Your task to perform on an android device: turn off notifications settings in the gmail app Image 0: 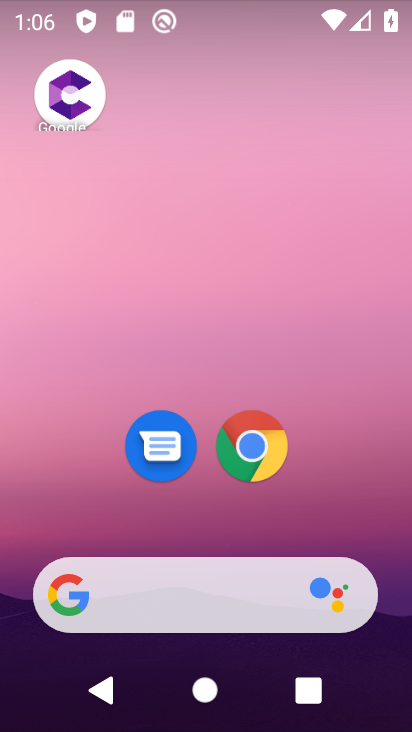
Step 0: drag from (345, 474) to (391, 6)
Your task to perform on an android device: turn off notifications settings in the gmail app Image 1: 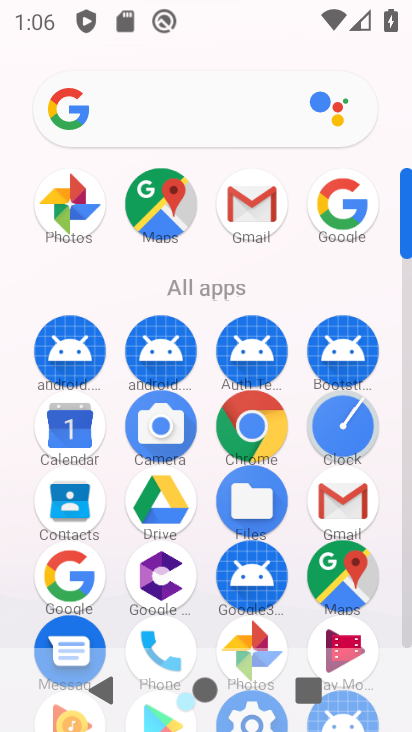
Step 1: click (267, 197)
Your task to perform on an android device: turn off notifications settings in the gmail app Image 2: 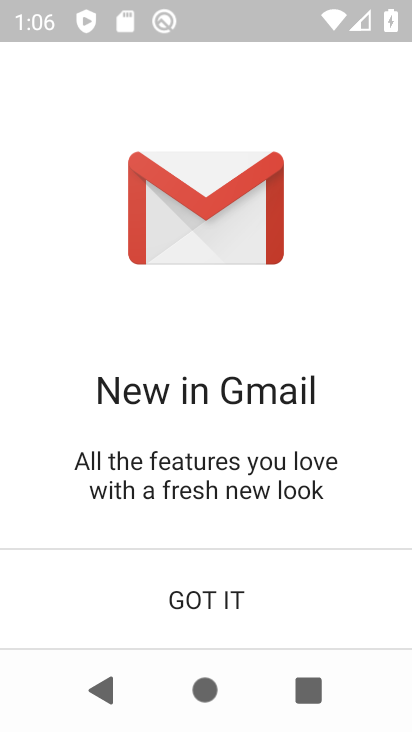
Step 2: click (145, 571)
Your task to perform on an android device: turn off notifications settings in the gmail app Image 3: 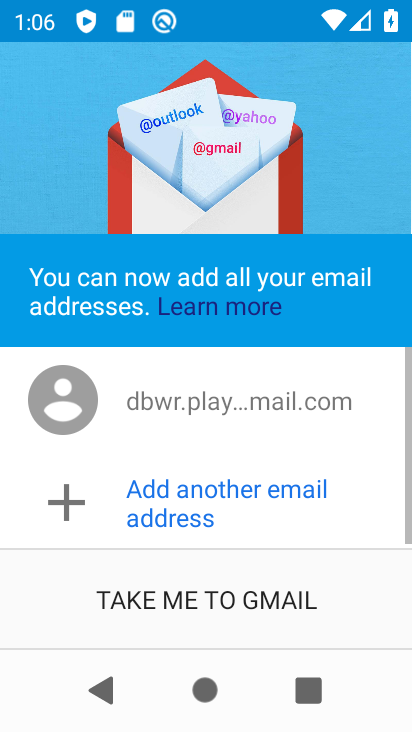
Step 3: click (148, 575)
Your task to perform on an android device: turn off notifications settings in the gmail app Image 4: 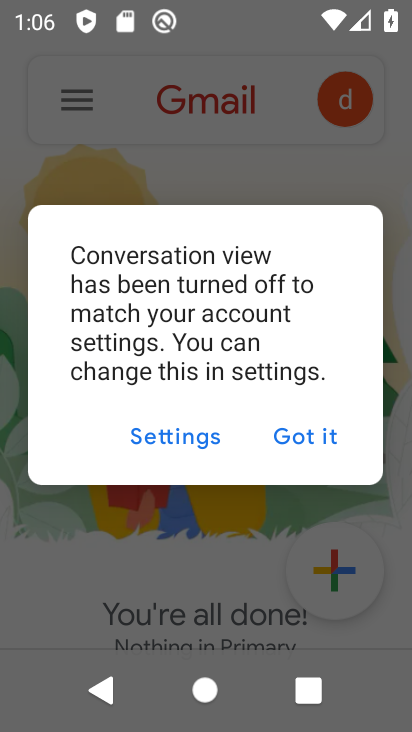
Step 4: click (314, 434)
Your task to perform on an android device: turn off notifications settings in the gmail app Image 5: 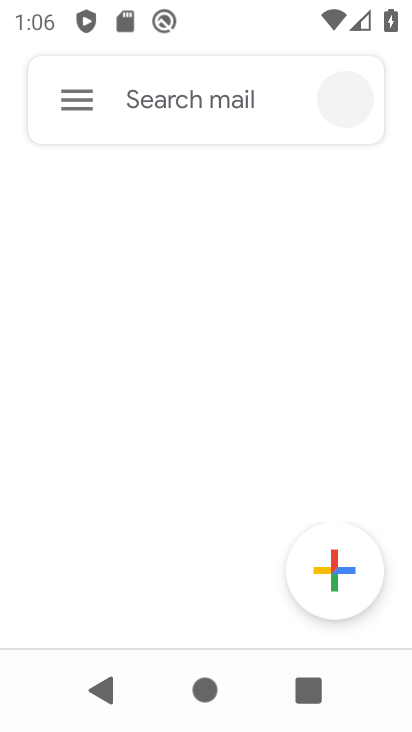
Step 5: click (86, 108)
Your task to perform on an android device: turn off notifications settings in the gmail app Image 6: 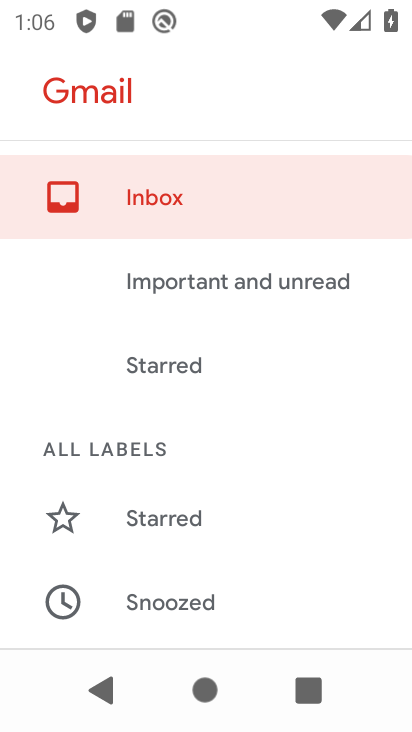
Step 6: drag from (200, 531) to (262, 111)
Your task to perform on an android device: turn off notifications settings in the gmail app Image 7: 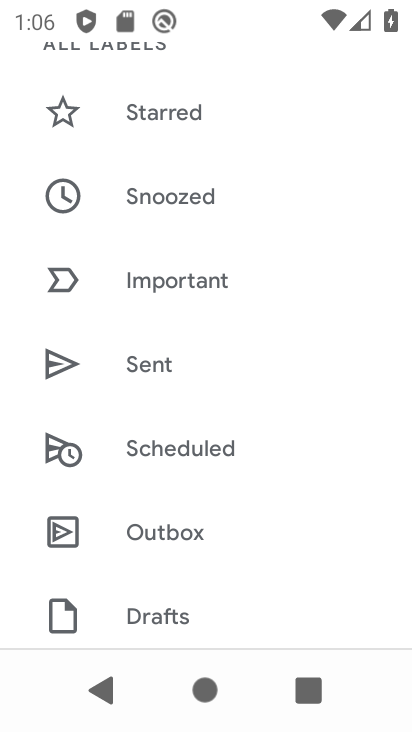
Step 7: drag from (202, 508) to (247, 82)
Your task to perform on an android device: turn off notifications settings in the gmail app Image 8: 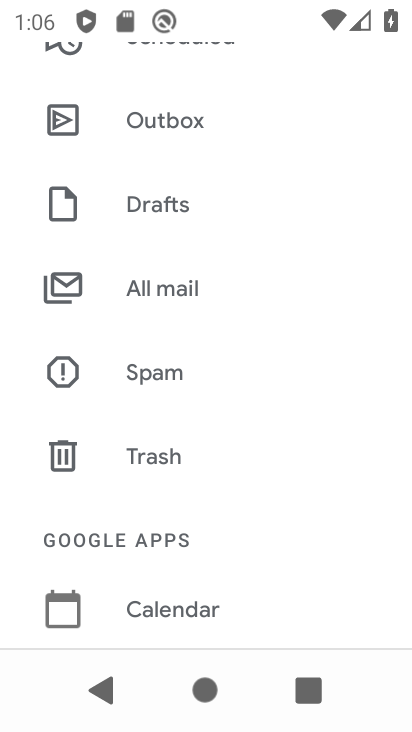
Step 8: drag from (181, 536) to (254, 153)
Your task to perform on an android device: turn off notifications settings in the gmail app Image 9: 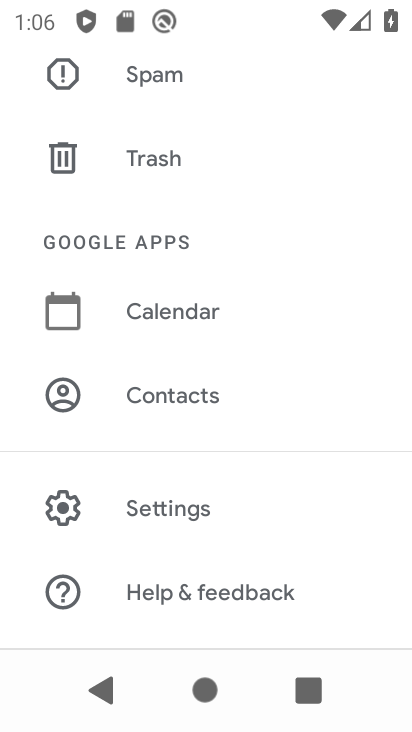
Step 9: click (238, 530)
Your task to perform on an android device: turn off notifications settings in the gmail app Image 10: 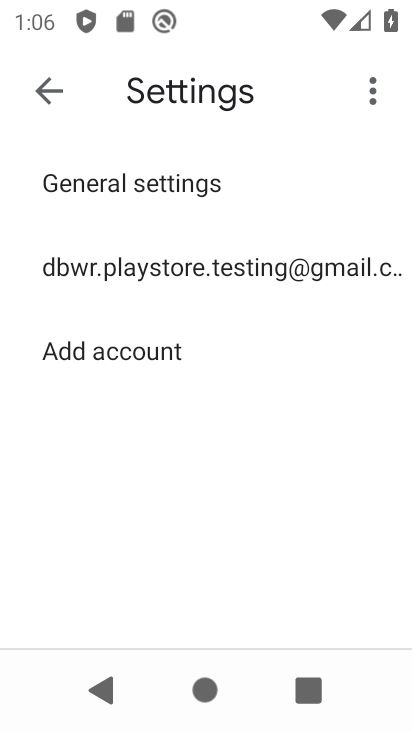
Step 10: click (248, 261)
Your task to perform on an android device: turn off notifications settings in the gmail app Image 11: 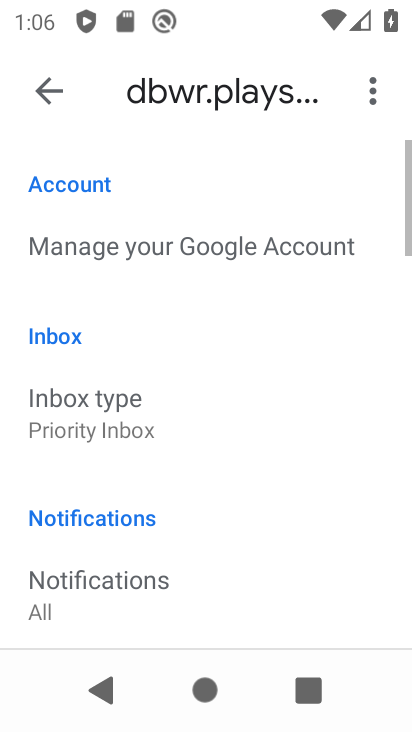
Step 11: click (166, 581)
Your task to perform on an android device: turn off notifications settings in the gmail app Image 12: 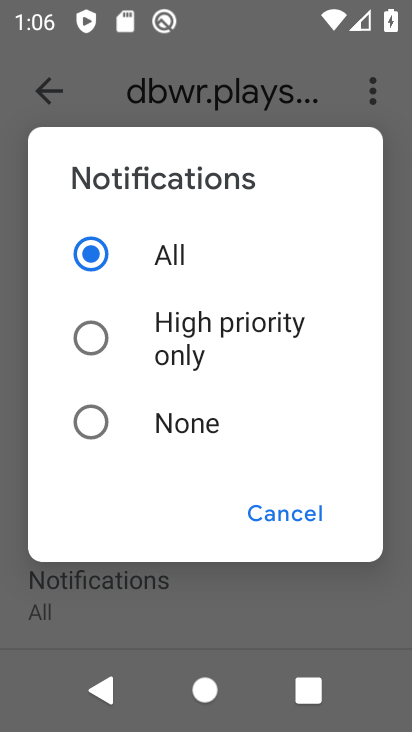
Step 12: click (139, 411)
Your task to perform on an android device: turn off notifications settings in the gmail app Image 13: 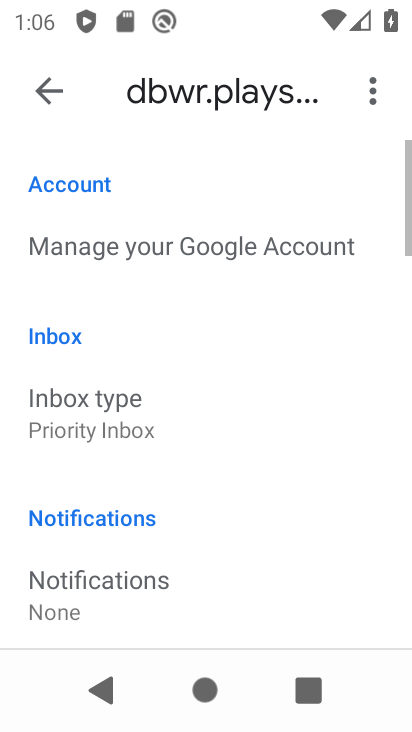
Step 13: task complete